Your task to perform on an android device: clear all cookies in the chrome app Image 0: 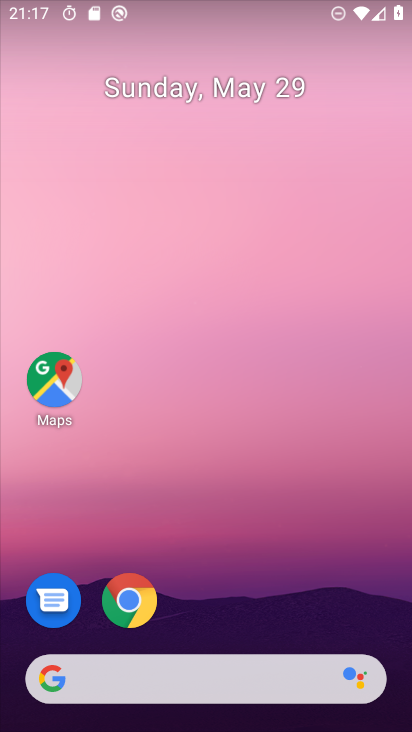
Step 0: drag from (240, 573) to (261, 129)
Your task to perform on an android device: clear all cookies in the chrome app Image 1: 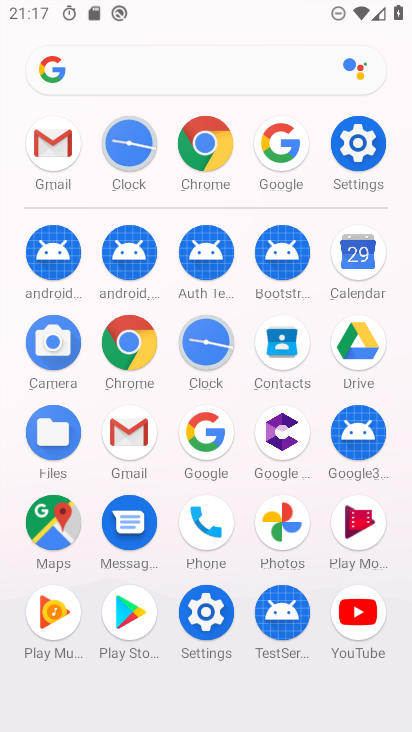
Step 1: click (140, 349)
Your task to perform on an android device: clear all cookies in the chrome app Image 2: 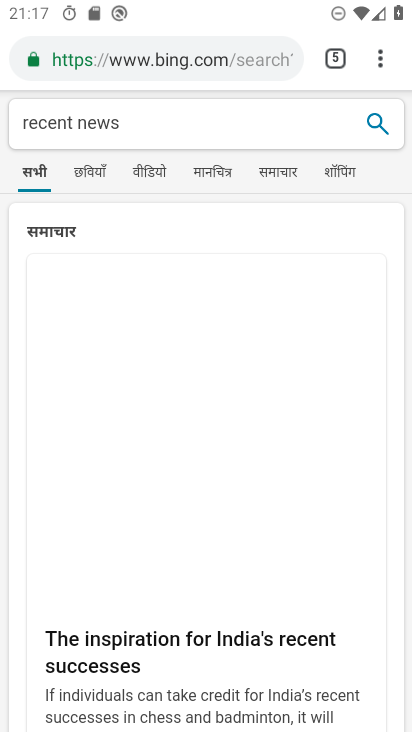
Step 2: drag from (393, 66) to (248, 330)
Your task to perform on an android device: clear all cookies in the chrome app Image 3: 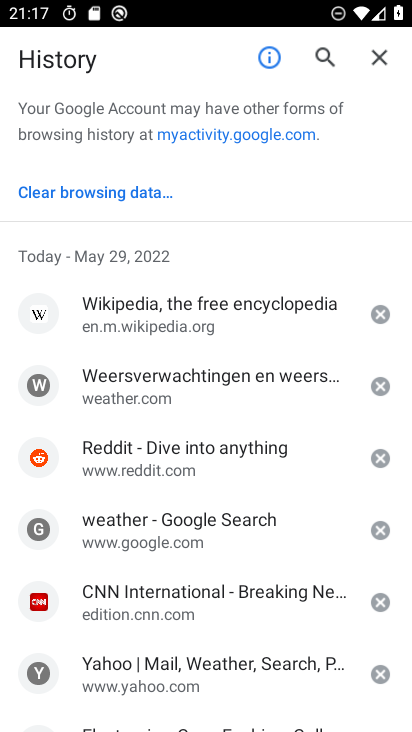
Step 3: click (97, 193)
Your task to perform on an android device: clear all cookies in the chrome app Image 4: 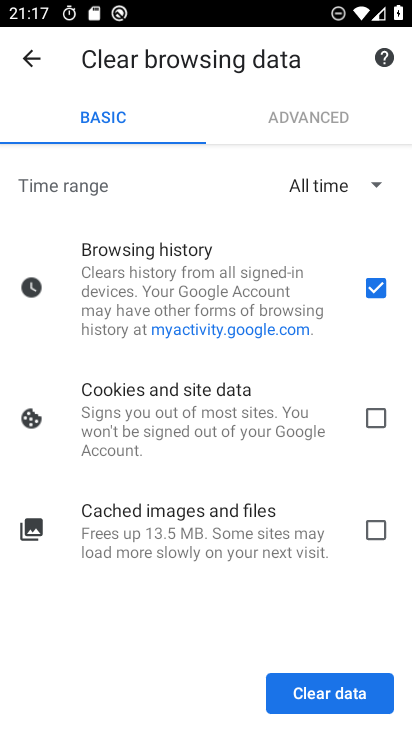
Step 4: click (371, 422)
Your task to perform on an android device: clear all cookies in the chrome app Image 5: 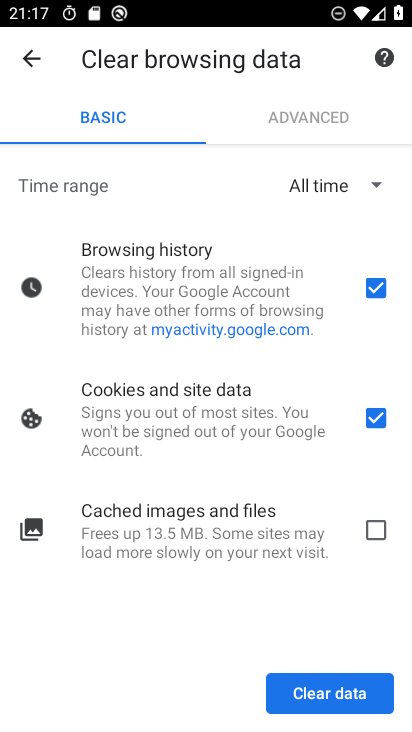
Step 5: click (333, 684)
Your task to perform on an android device: clear all cookies in the chrome app Image 6: 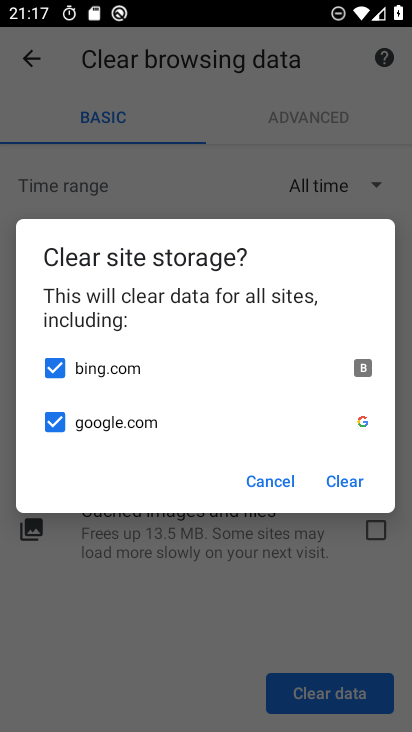
Step 6: click (344, 478)
Your task to perform on an android device: clear all cookies in the chrome app Image 7: 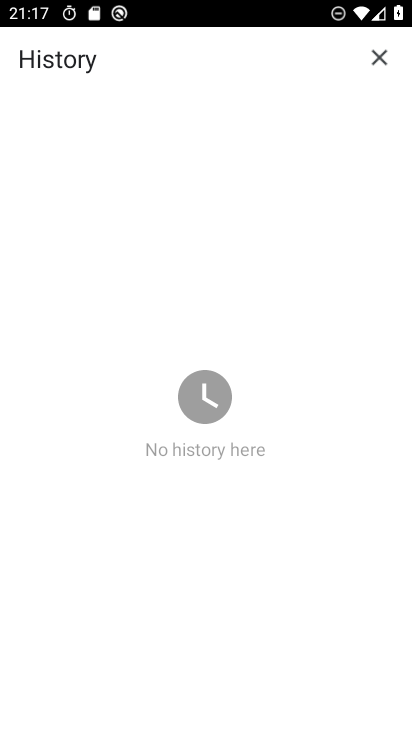
Step 7: task complete